Your task to perform on an android device: Go to eBay Image 0: 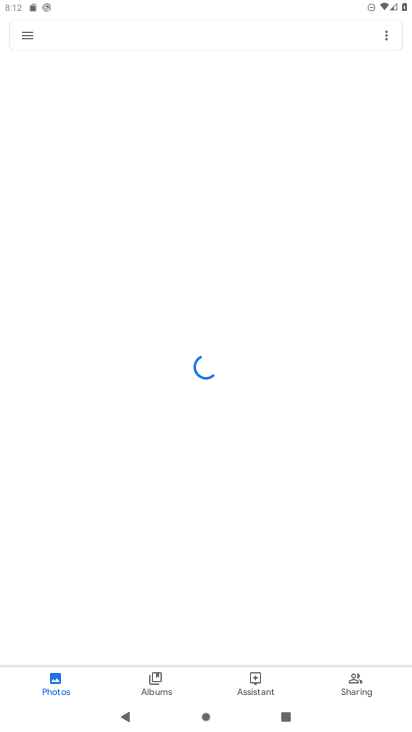
Step 0: press home button
Your task to perform on an android device: Go to eBay Image 1: 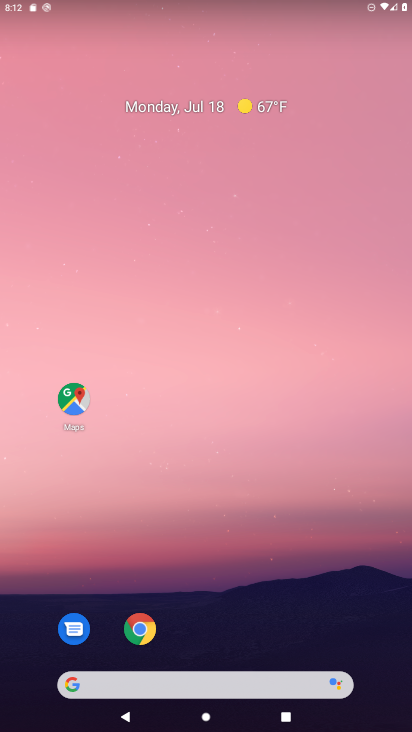
Step 1: click (152, 636)
Your task to perform on an android device: Go to eBay Image 2: 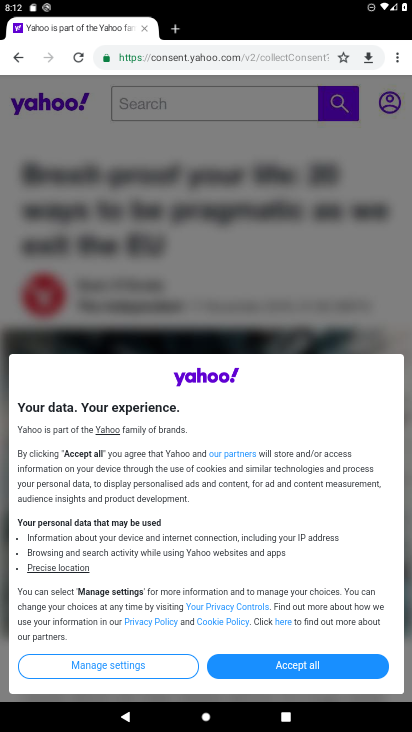
Step 2: click (177, 25)
Your task to perform on an android device: Go to eBay Image 3: 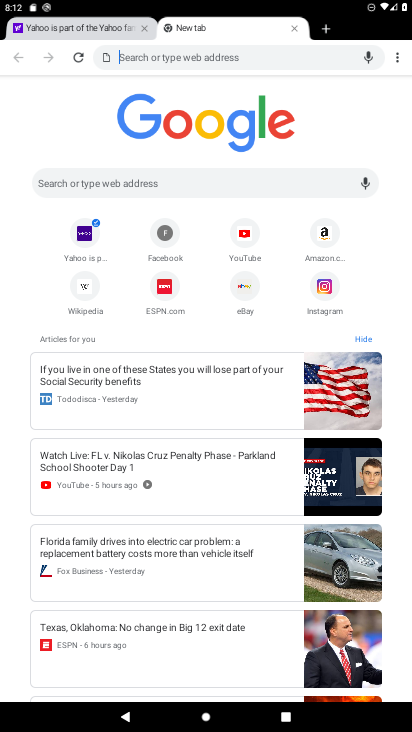
Step 3: click (248, 273)
Your task to perform on an android device: Go to eBay Image 4: 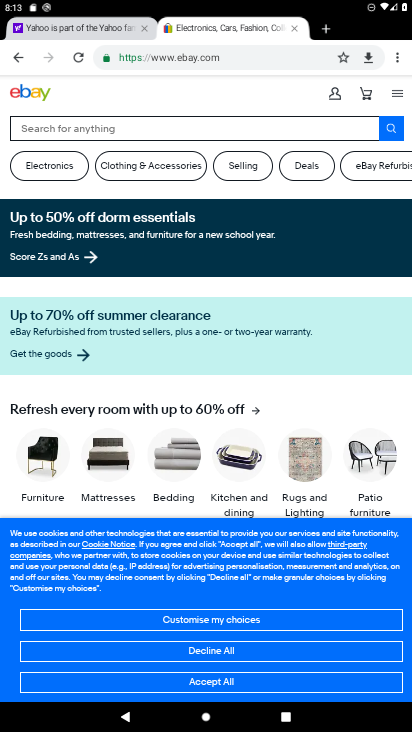
Step 4: task complete